Your task to perform on an android device: Open battery settings Image 0: 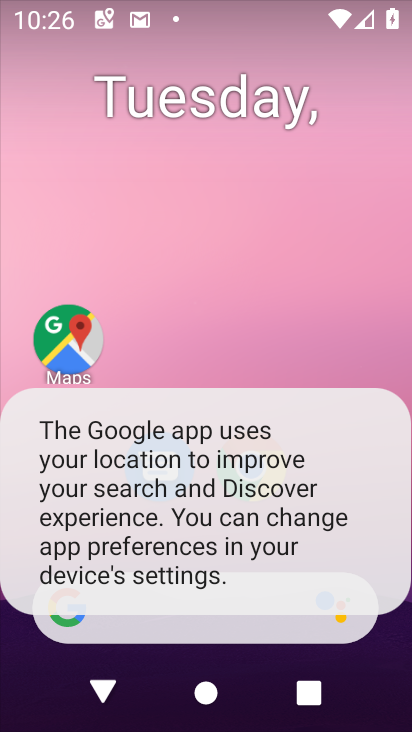
Step 0: press home button
Your task to perform on an android device: Open battery settings Image 1: 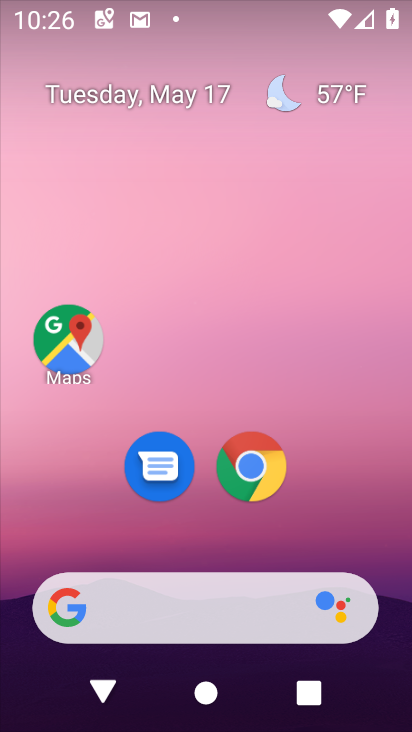
Step 1: drag from (210, 637) to (213, 158)
Your task to perform on an android device: Open battery settings Image 2: 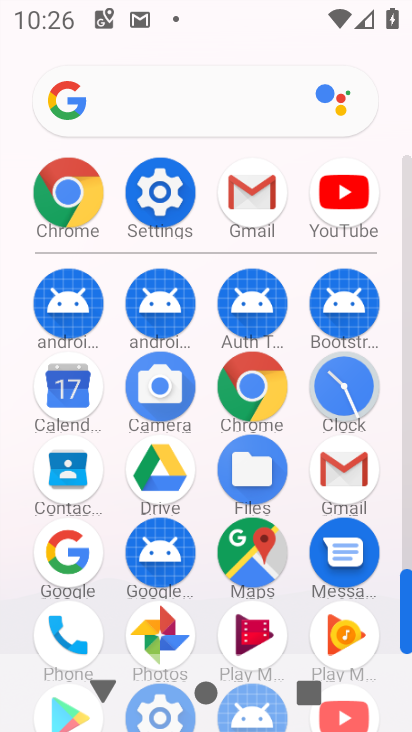
Step 2: click (160, 212)
Your task to perform on an android device: Open battery settings Image 3: 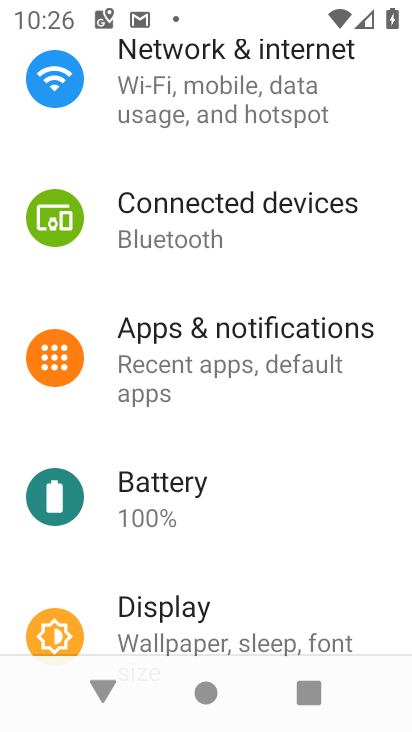
Step 3: click (124, 488)
Your task to perform on an android device: Open battery settings Image 4: 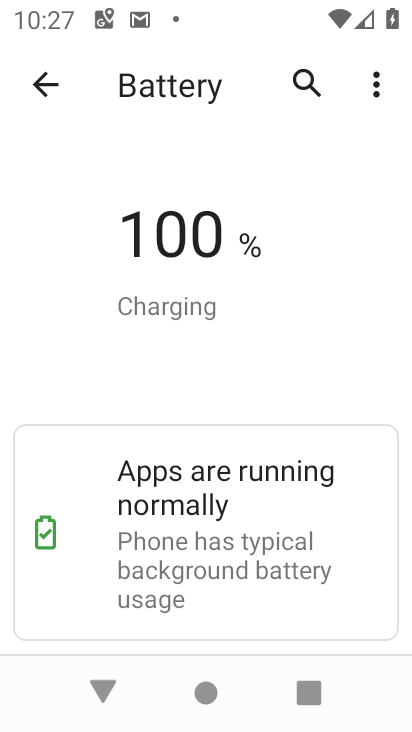
Step 4: task complete